Your task to perform on an android device: turn on the 24-hour format for clock Image 0: 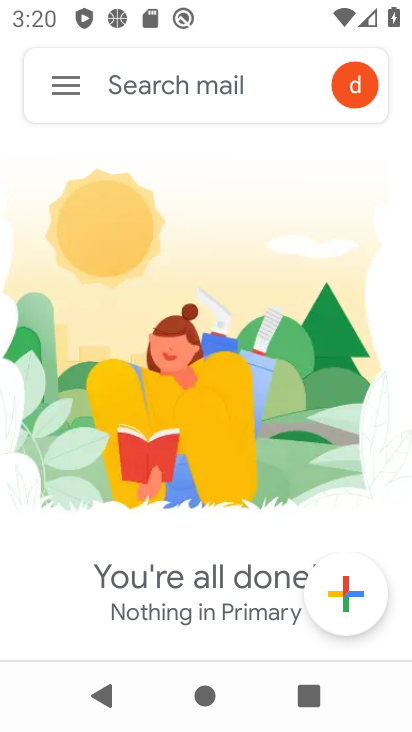
Step 0: press home button
Your task to perform on an android device: turn on the 24-hour format for clock Image 1: 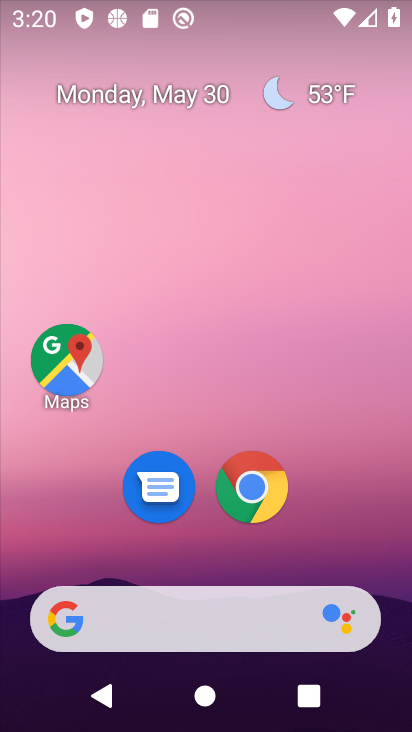
Step 1: drag from (65, 613) to (166, 132)
Your task to perform on an android device: turn on the 24-hour format for clock Image 2: 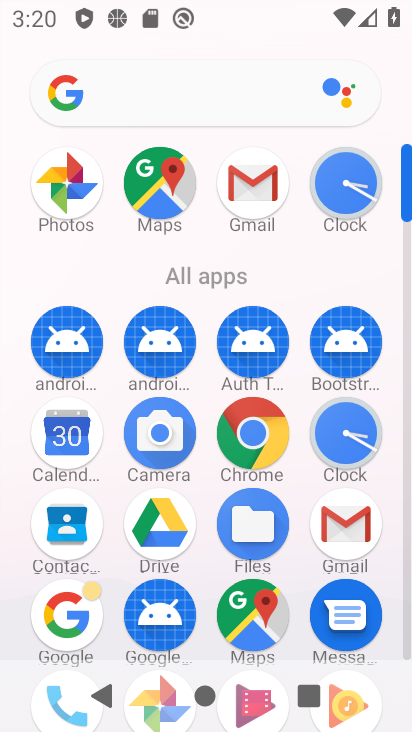
Step 2: click (371, 433)
Your task to perform on an android device: turn on the 24-hour format for clock Image 3: 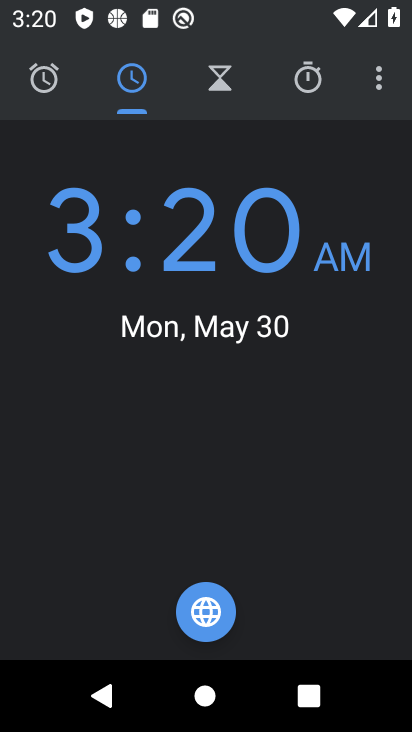
Step 3: click (373, 80)
Your task to perform on an android device: turn on the 24-hour format for clock Image 4: 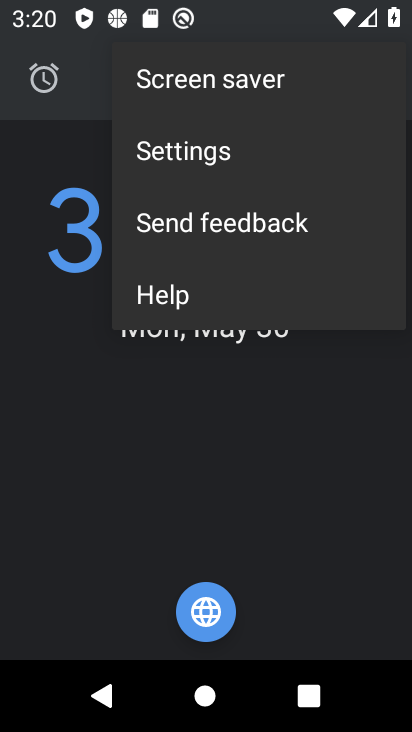
Step 4: click (303, 162)
Your task to perform on an android device: turn on the 24-hour format for clock Image 5: 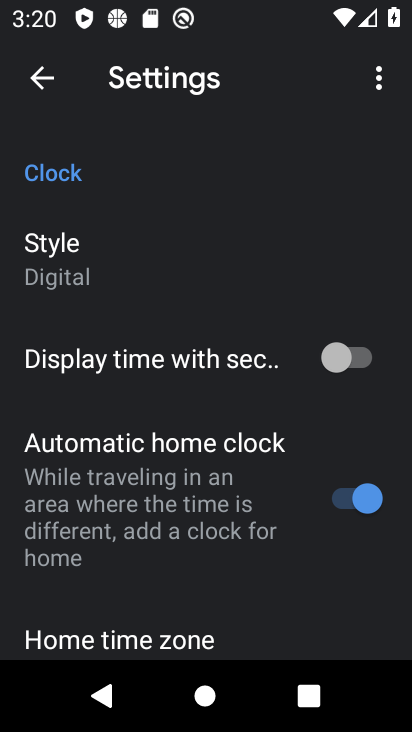
Step 5: drag from (172, 590) to (218, 326)
Your task to perform on an android device: turn on the 24-hour format for clock Image 6: 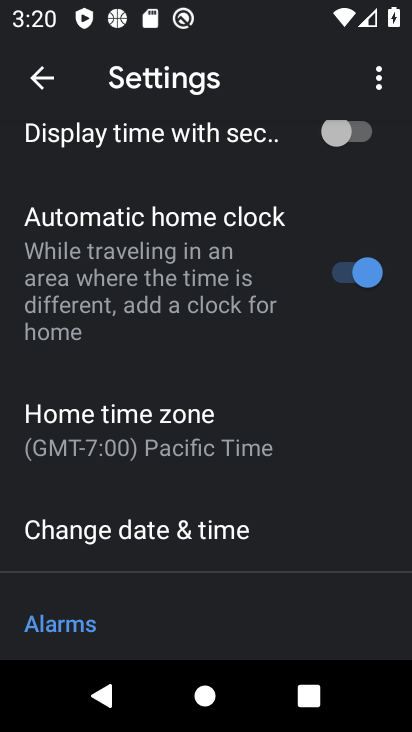
Step 6: click (243, 546)
Your task to perform on an android device: turn on the 24-hour format for clock Image 7: 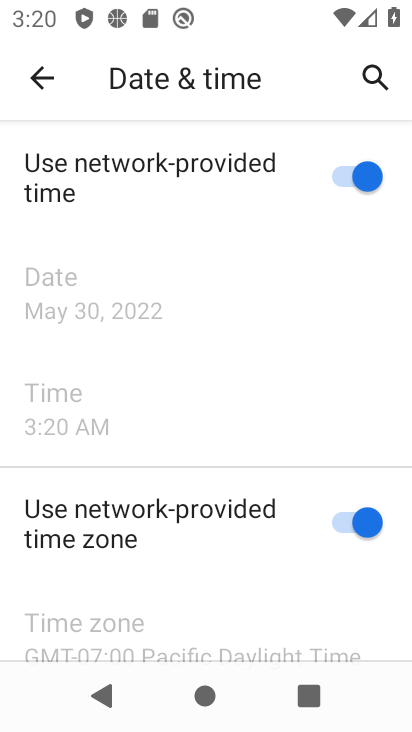
Step 7: drag from (193, 625) to (262, 175)
Your task to perform on an android device: turn on the 24-hour format for clock Image 8: 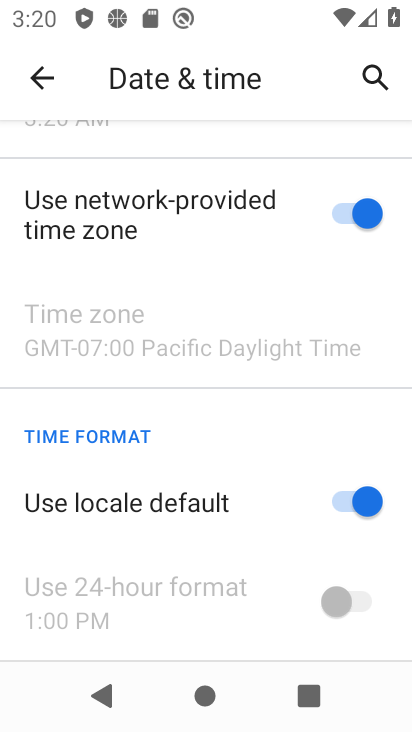
Step 8: drag from (185, 586) to (222, 380)
Your task to perform on an android device: turn on the 24-hour format for clock Image 9: 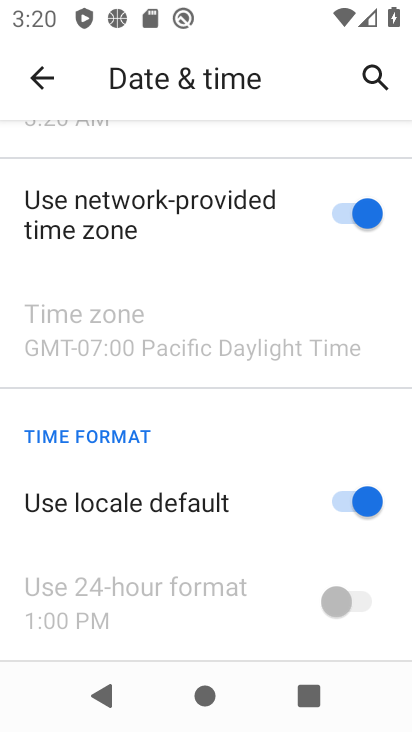
Step 9: click (345, 494)
Your task to perform on an android device: turn on the 24-hour format for clock Image 10: 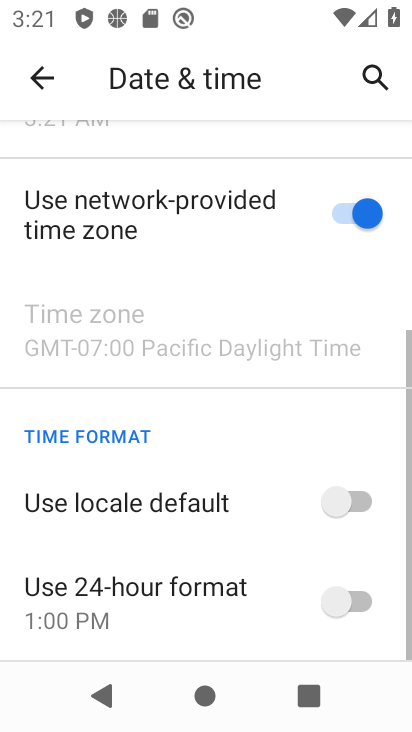
Step 10: click (369, 604)
Your task to perform on an android device: turn on the 24-hour format for clock Image 11: 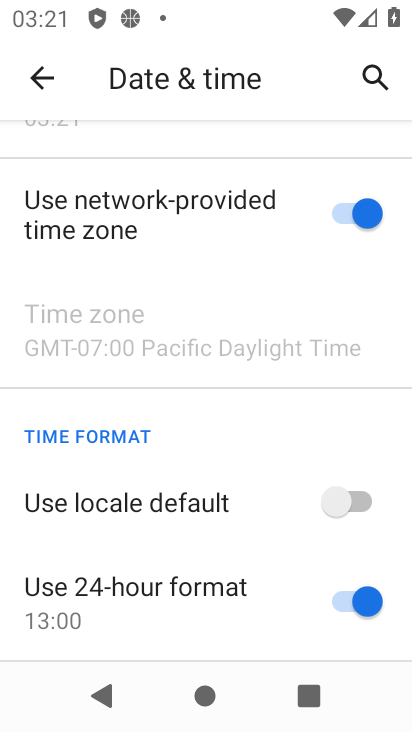
Step 11: task complete